Your task to perform on an android device: Go to Google maps Image 0: 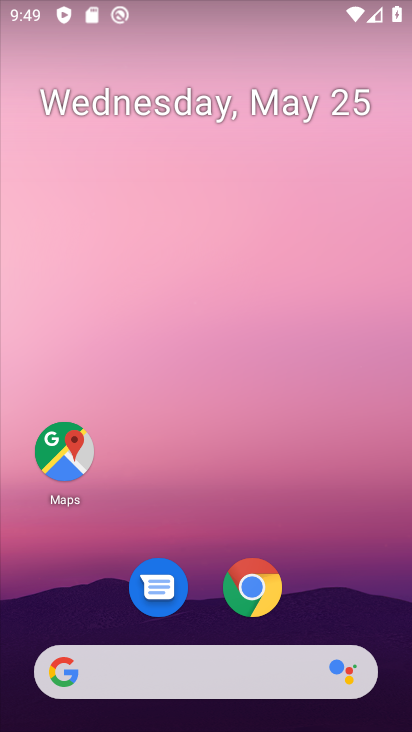
Step 0: click (63, 471)
Your task to perform on an android device: Go to Google maps Image 1: 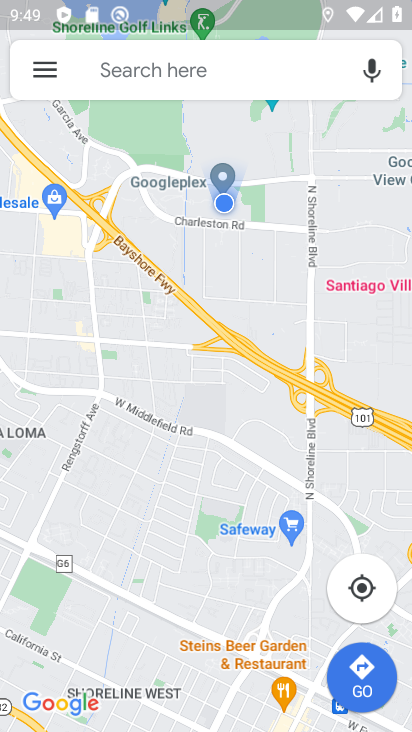
Step 1: task complete